Your task to perform on an android device: Find coffee shops on Maps Image 0: 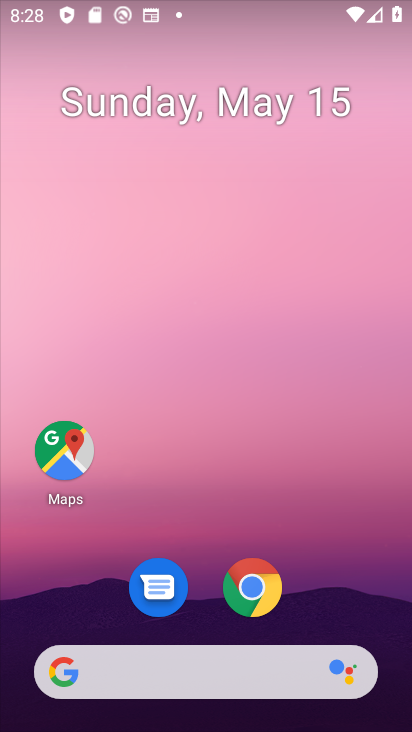
Step 0: drag from (376, 623) to (307, 69)
Your task to perform on an android device: Find coffee shops on Maps Image 1: 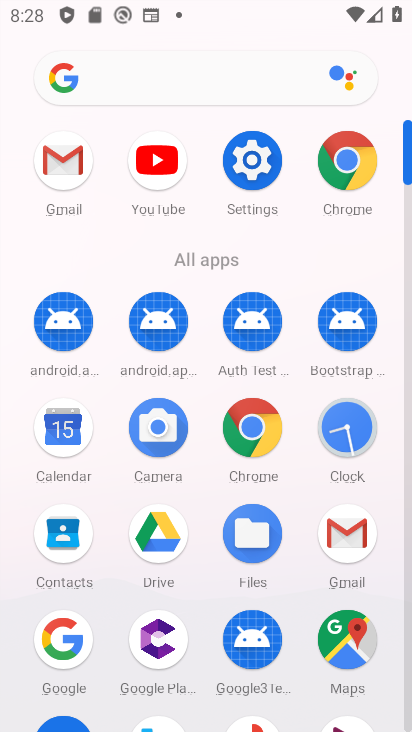
Step 1: click (361, 649)
Your task to perform on an android device: Find coffee shops on Maps Image 2: 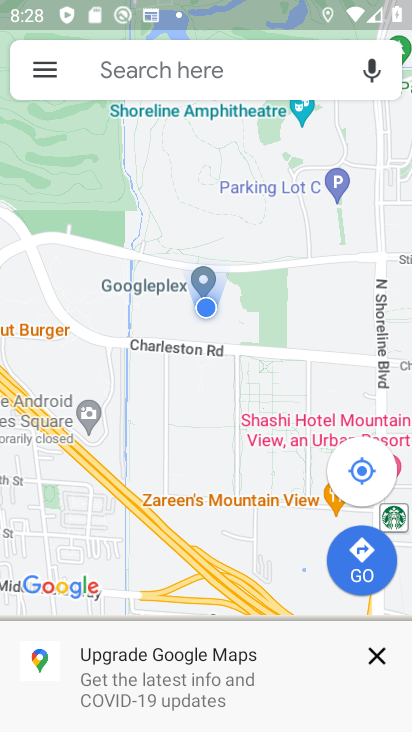
Step 2: click (166, 66)
Your task to perform on an android device: Find coffee shops on Maps Image 3: 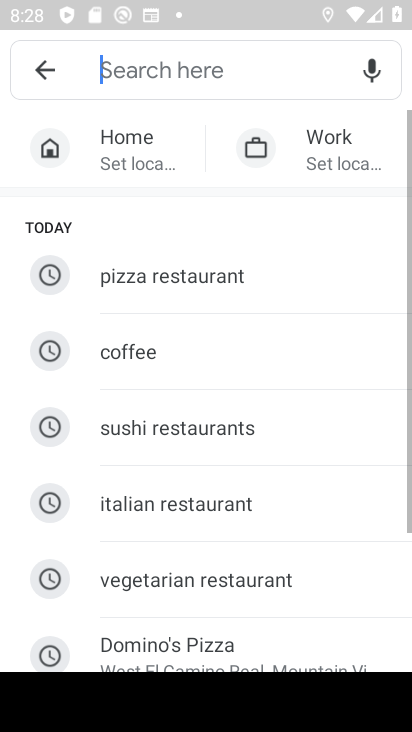
Step 3: click (149, 379)
Your task to perform on an android device: Find coffee shops on Maps Image 4: 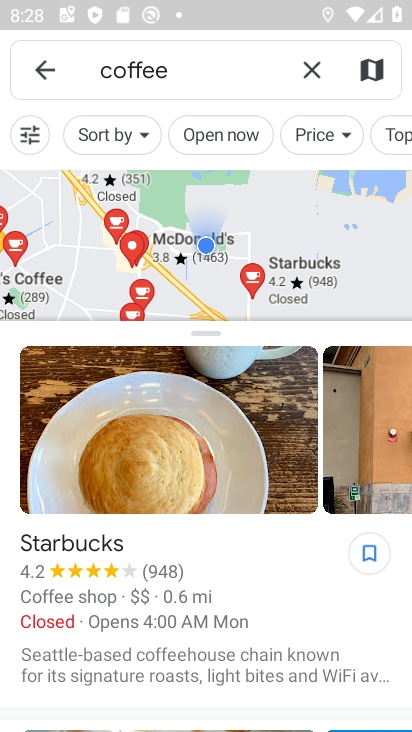
Step 4: task complete